Your task to perform on an android device: check android version Image 0: 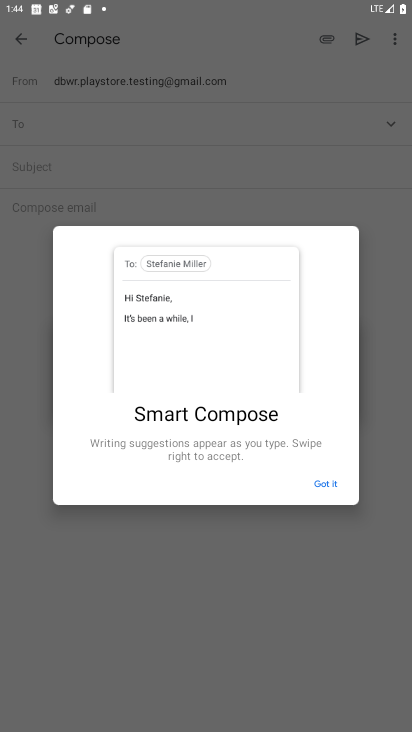
Step 0: press home button
Your task to perform on an android device: check android version Image 1: 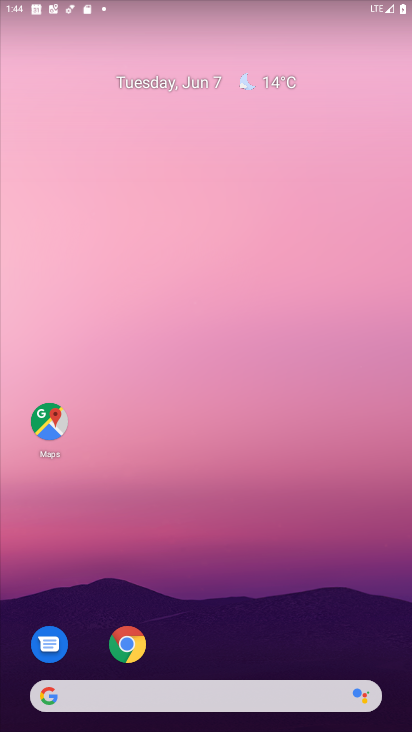
Step 1: drag from (260, 619) to (259, 2)
Your task to perform on an android device: check android version Image 2: 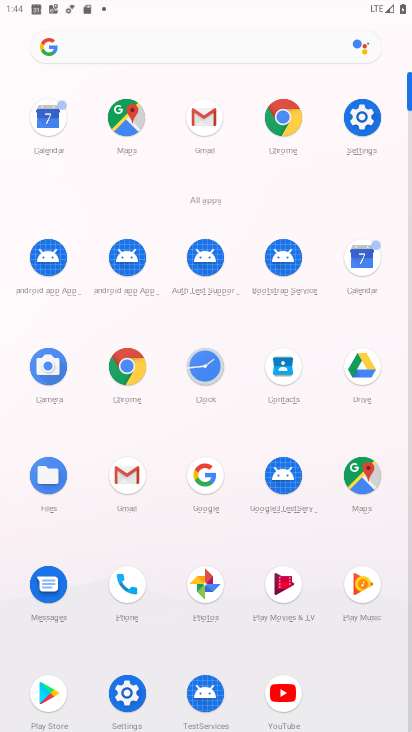
Step 2: click (361, 113)
Your task to perform on an android device: check android version Image 3: 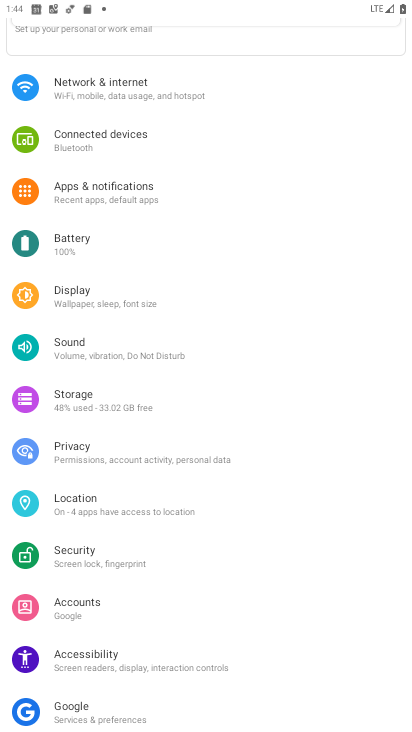
Step 3: drag from (221, 575) to (288, 21)
Your task to perform on an android device: check android version Image 4: 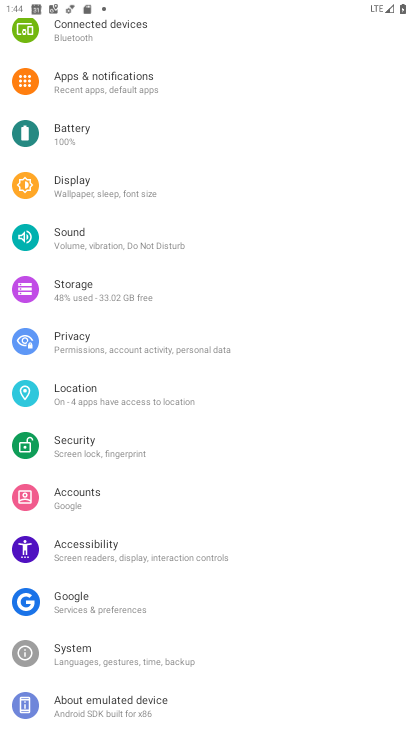
Step 4: click (134, 698)
Your task to perform on an android device: check android version Image 5: 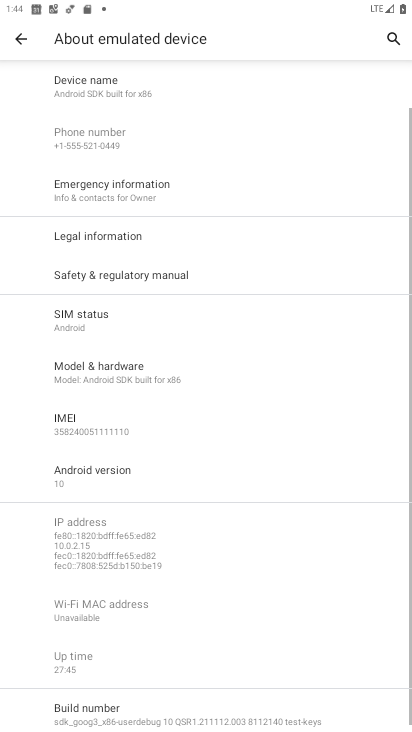
Step 5: click (104, 483)
Your task to perform on an android device: check android version Image 6: 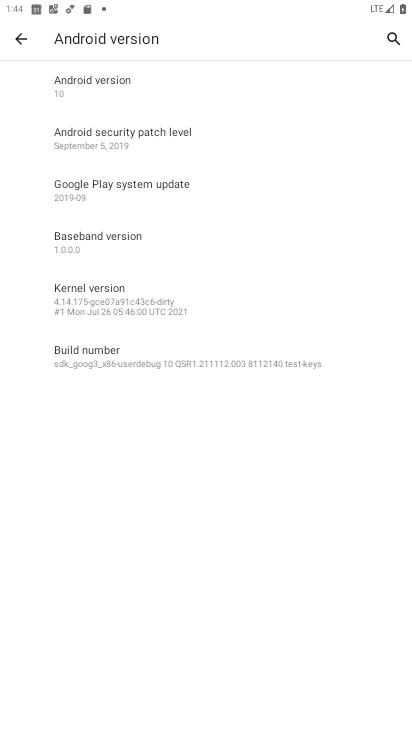
Step 6: click (87, 68)
Your task to perform on an android device: check android version Image 7: 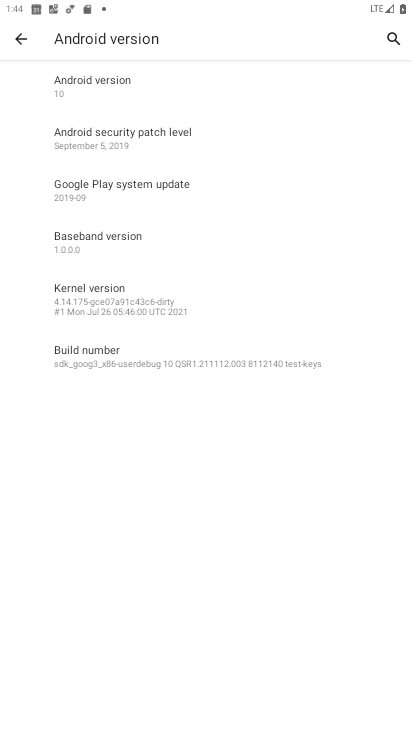
Step 7: task complete